Your task to perform on an android device: move a message to another label in the gmail app Image 0: 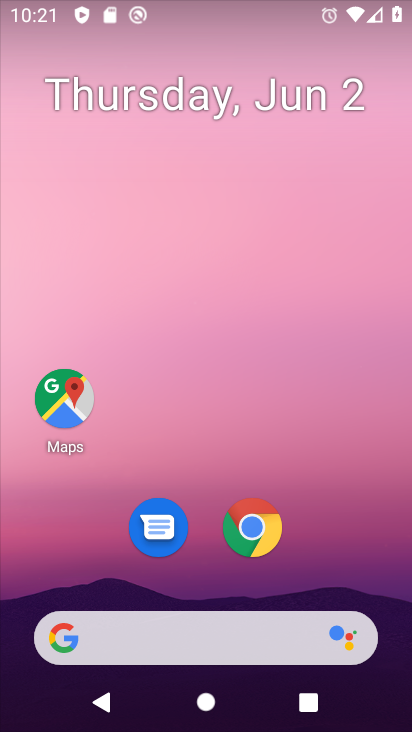
Step 0: drag from (255, 626) to (171, 4)
Your task to perform on an android device: move a message to another label in the gmail app Image 1: 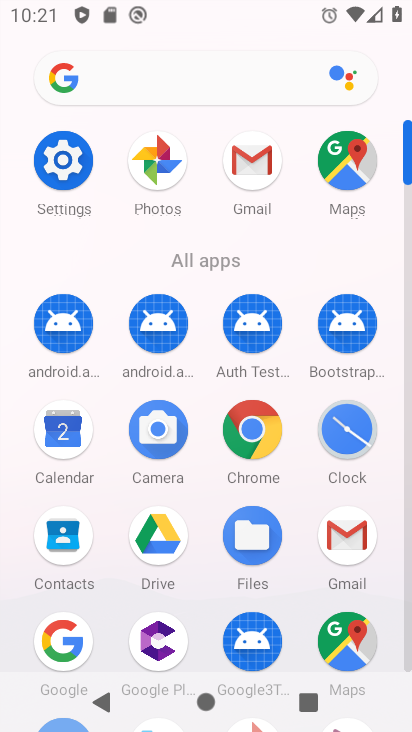
Step 1: click (360, 540)
Your task to perform on an android device: move a message to another label in the gmail app Image 2: 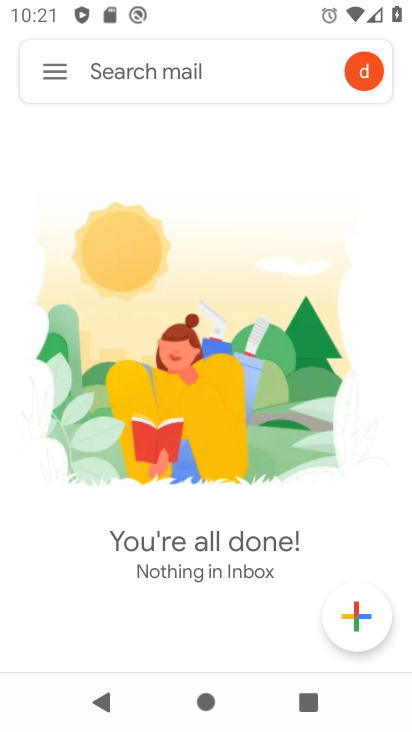
Step 2: click (52, 80)
Your task to perform on an android device: move a message to another label in the gmail app Image 3: 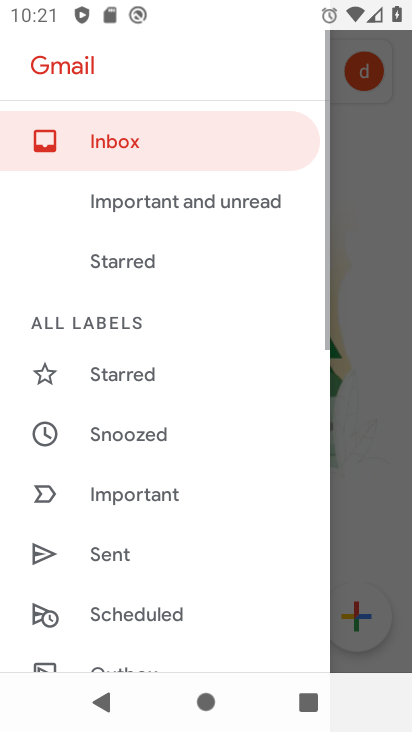
Step 3: drag from (221, 592) to (209, 40)
Your task to perform on an android device: move a message to another label in the gmail app Image 4: 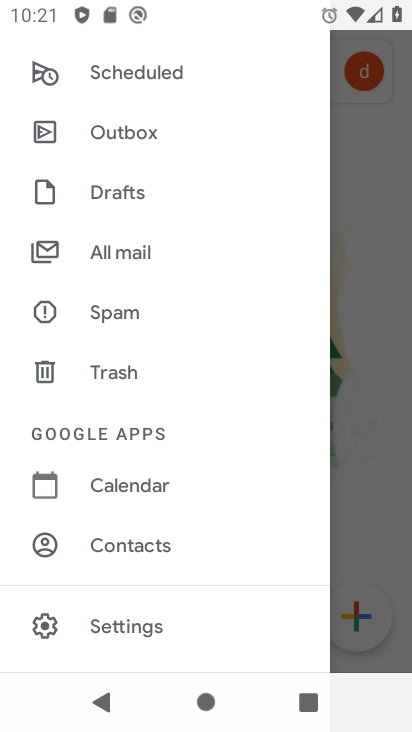
Step 4: click (90, 259)
Your task to perform on an android device: move a message to another label in the gmail app Image 5: 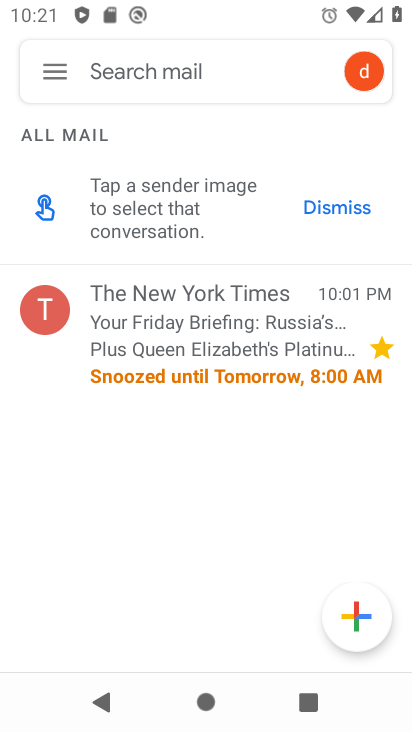
Step 5: click (61, 303)
Your task to perform on an android device: move a message to another label in the gmail app Image 6: 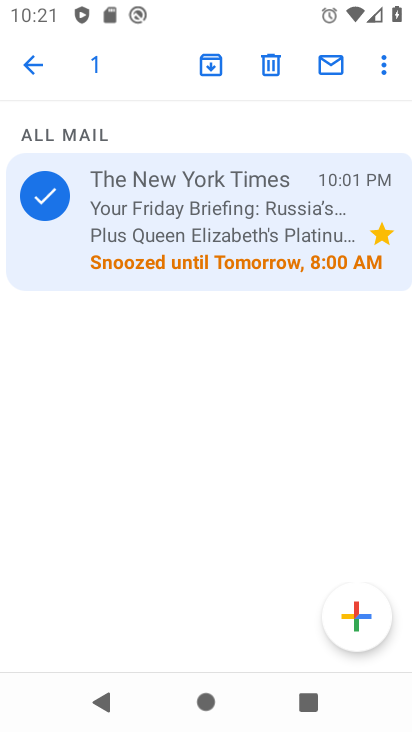
Step 6: click (392, 63)
Your task to perform on an android device: move a message to another label in the gmail app Image 7: 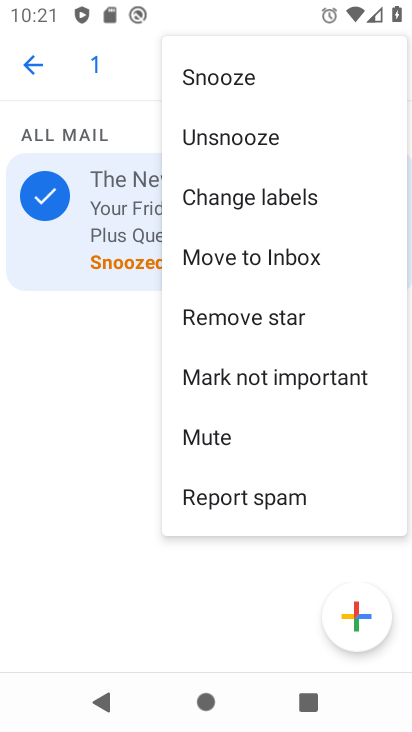
Step 7: click (299, 196)
Your task to perform on an android device: move a message to another label in the gmail app Image 8: 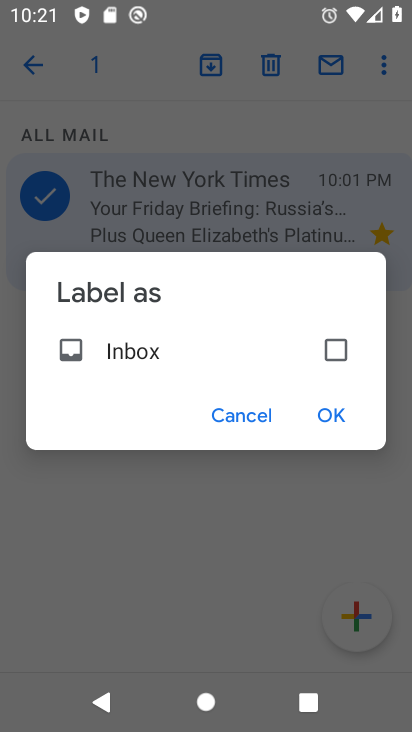
Step 8: click (340, 360)
Your task to perform on an android device: move a message to another label in the gmail app Image 9: 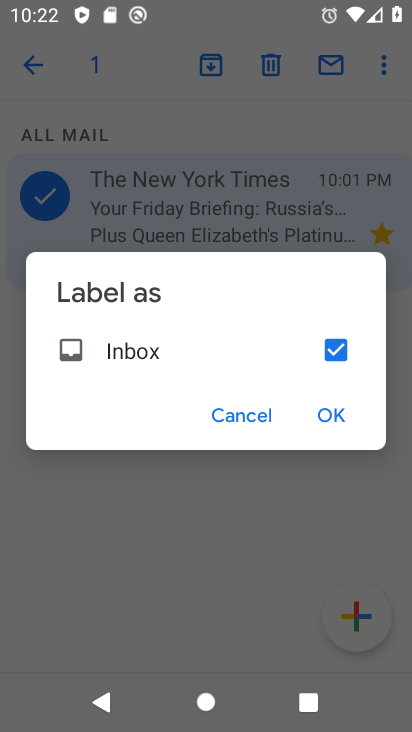
Step 9: click (323, 416)
Your task to perform on an android device: move a message to another label in the gmail app Image 10: 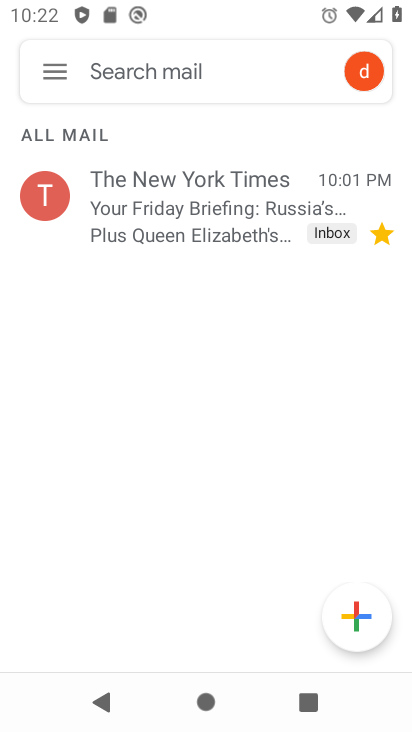
Step 10: task complete